Your task to perform on an android device: toggle improve location accuracy Image 0: 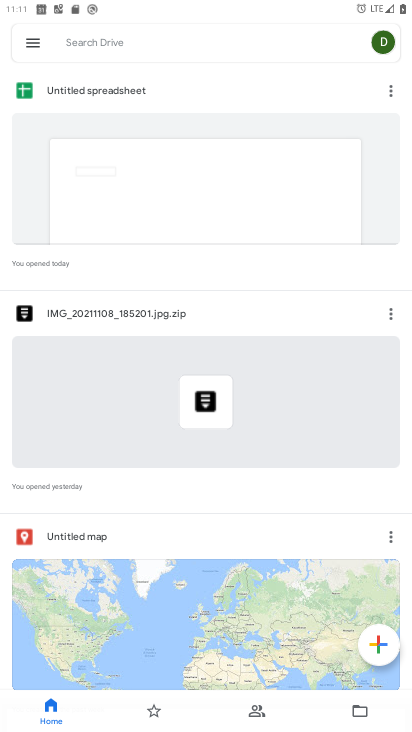
Step 0: press home button
Your task to perform on an android device: toggle improve location accuracy Image 1: 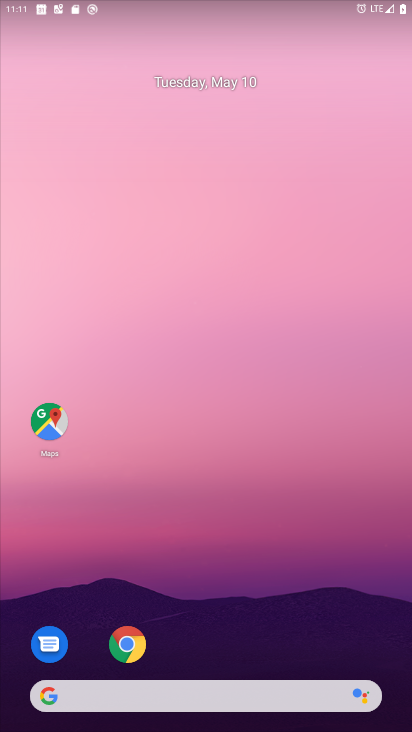
Step 1: drag from (292, 549) to (289, 9)
Your task to perform on an android device: toggle improve location accuracy Image 2: 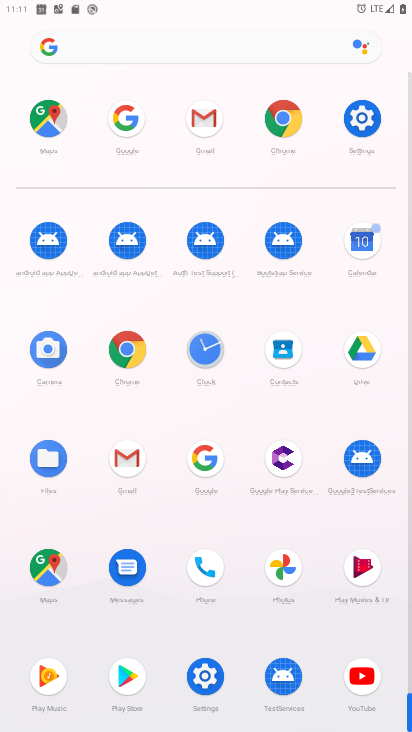
Step 2: click (356, 142)
Your task to perform on an android device: toggle improve location accuracy Image 3: 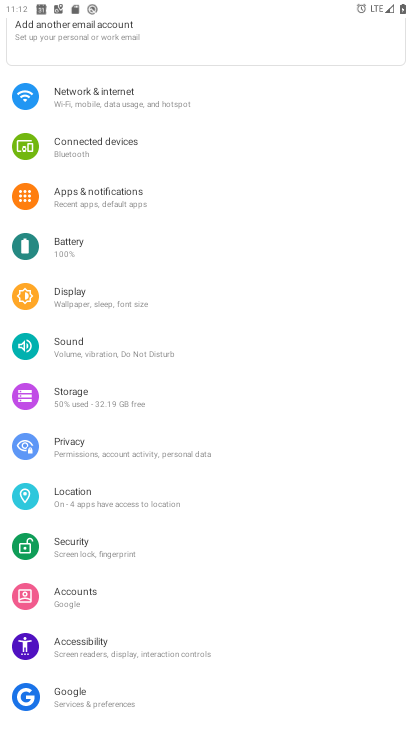
Step 3: click (129, 495)
Your task to perform on an android device: toggle improve location accuracy Image 4: 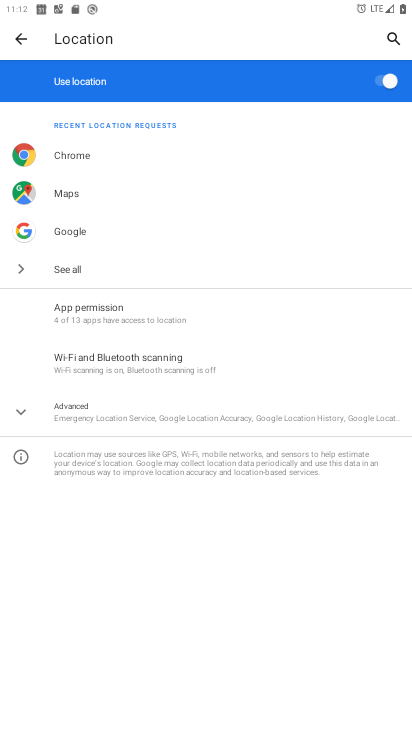
Step 4: click (216, 408)
Your task to perform on an android device: toggle improve location accuracy Image 5: 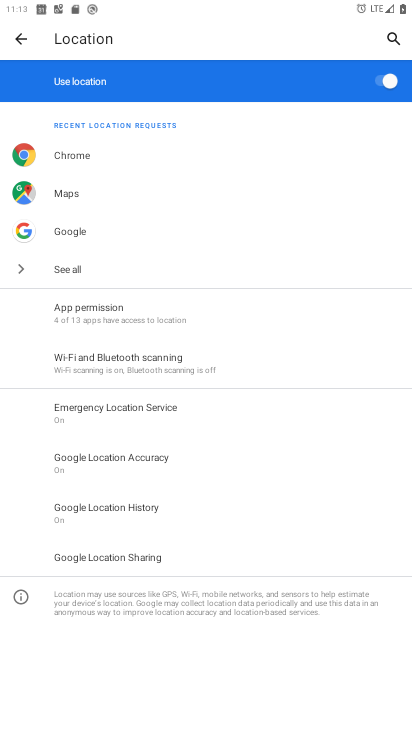
Step 5: click (178, 466)
Your task to perform on an android device: toggle improve location accuracy Image 6: 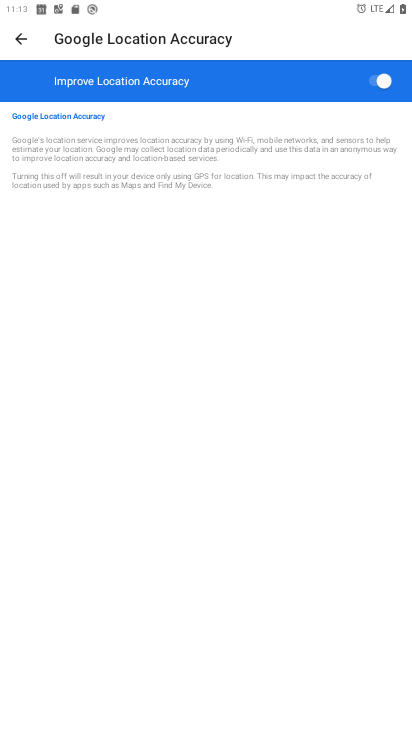
Step 6: task complete